Your task to perform on an android device: Is it going to rain tomorrow? Image 0: 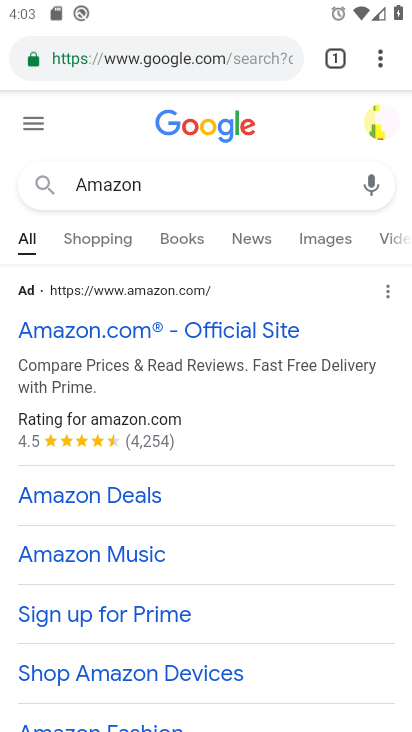
Step 0: press home button
Your task to perform on an android device: Is it going to rain tomorrow? Image 1: 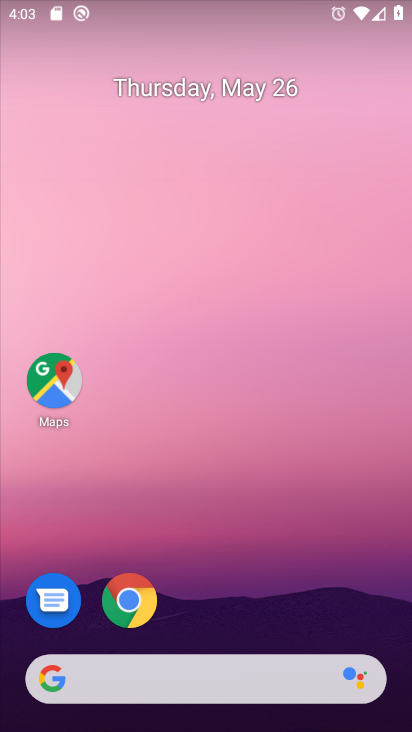
Step 1: click (128, 671)
Your task to perform on an android device: Is it going to rain tomorrow? Image 2: 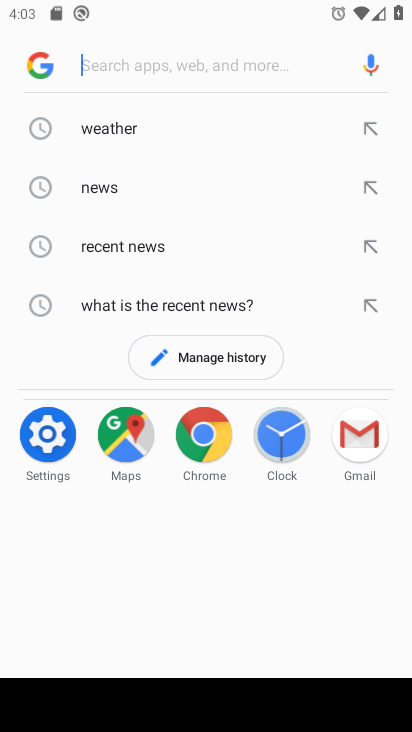
Step 2: click (130, 126)
Your task to perform on an android device: Is it going to rain tomorrow? Image 3: 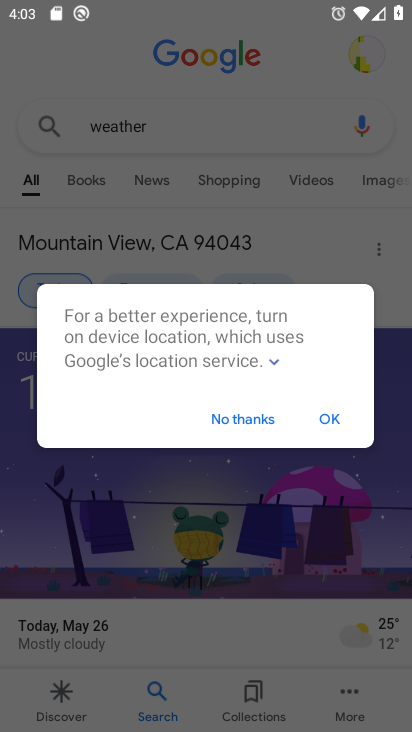
Step 3: click (325, 419)
Your task to perform on an android device: Is it going to rain tomorrow? Image 4: 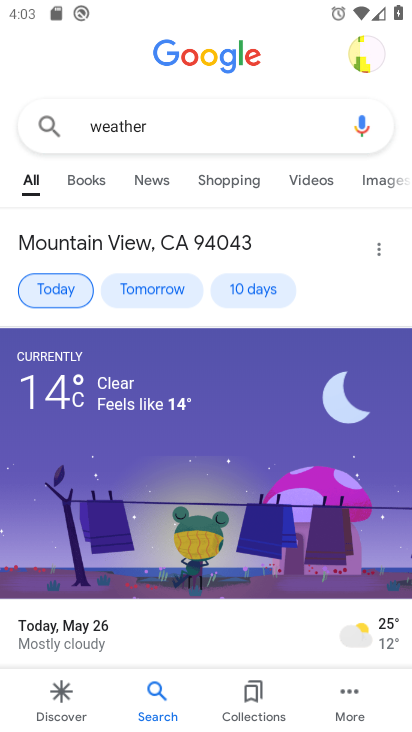
Step 4: drag from (152, 446) to (127, 348)
Your task to perform on an android device: Is it going to rain tomorrow? Image 5: 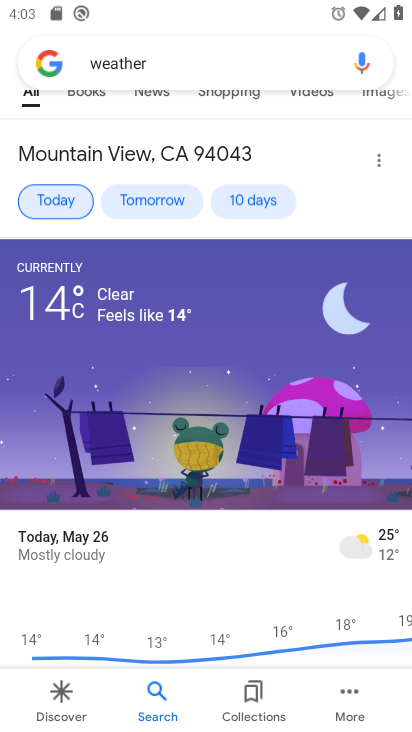
Step 5: click (146, 200)
Your task to perform on an android device: Is it going to rain tomorrow? Image 6: 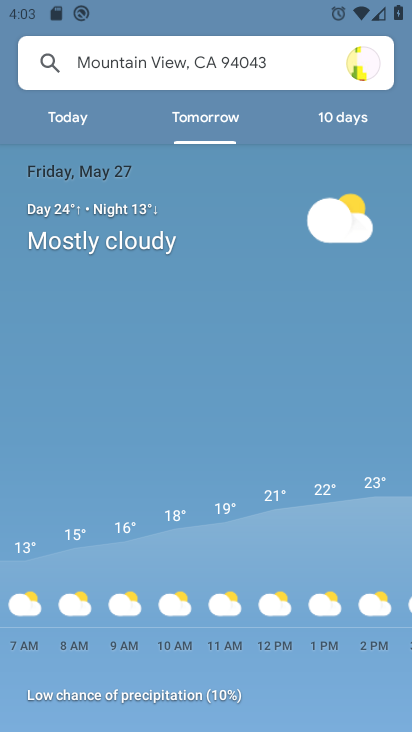
Step 6: task complete